Your task to perform on an android device: remove spam from my inbox in the gmail app Image 0: 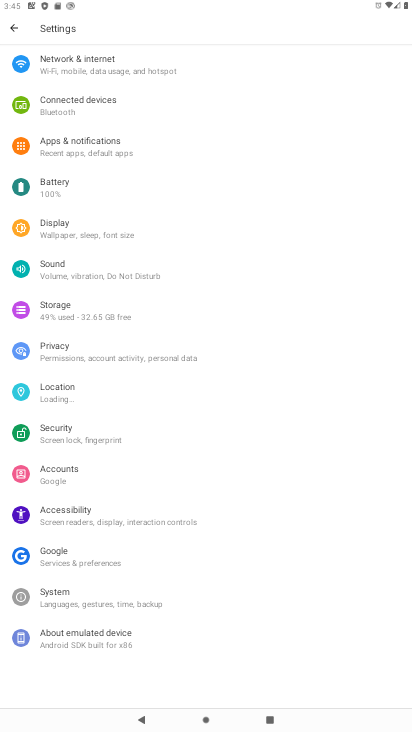
Step 0: press home button
Your task to perform on an android device: remove spam from my inbox in the gmail app Image 1: 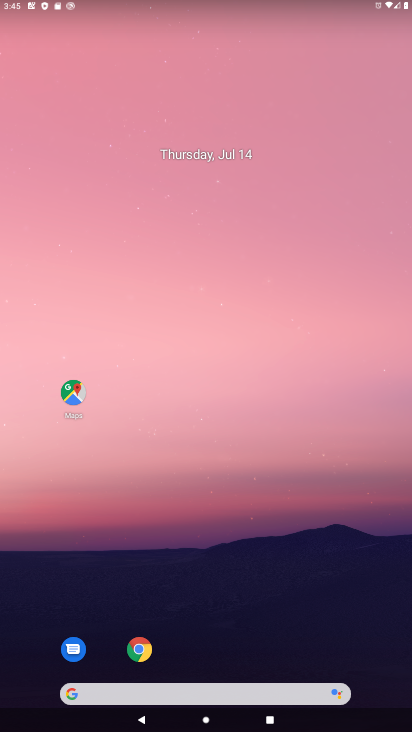
Step 1: drag from (225, 659) to (223, 109)
Your task to perform on an android device: remove spam from my inbox in the gmail app Image 2: 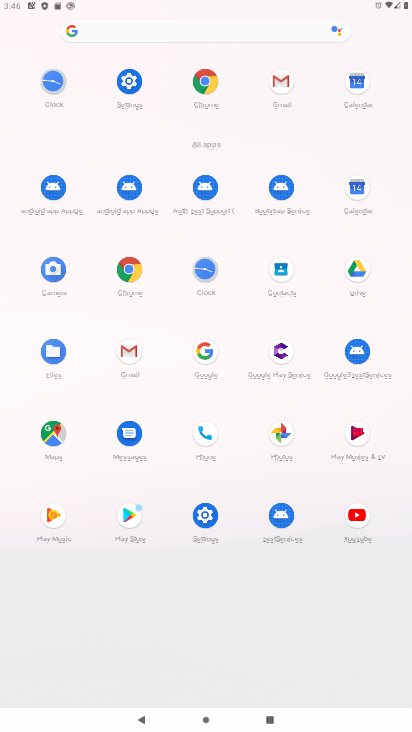
Step 2: click (131, 354)
Your task to perform on an android device: remove spam from my inbox in the gmail app Image 3: 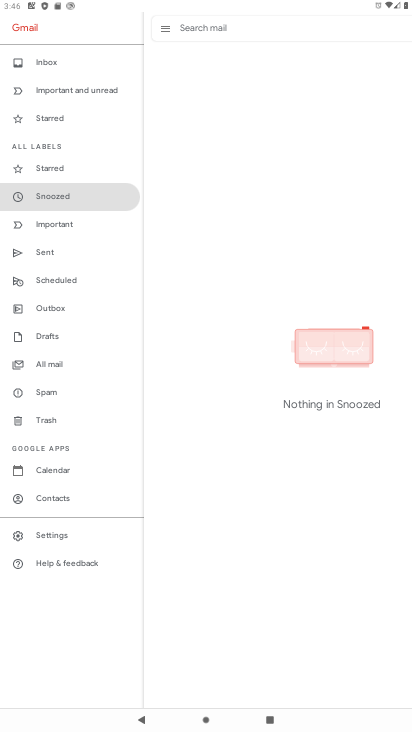
Step 3: click (53, 389)
Your task to perform on an android device: remove spam from my inbox in the gmail app Image 4: 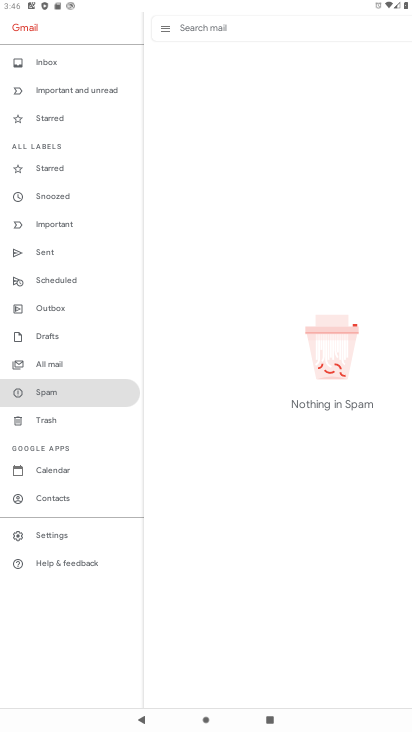
Step 4: task complete